Your task to perform on an android device: toggle sleep mode Image 0: 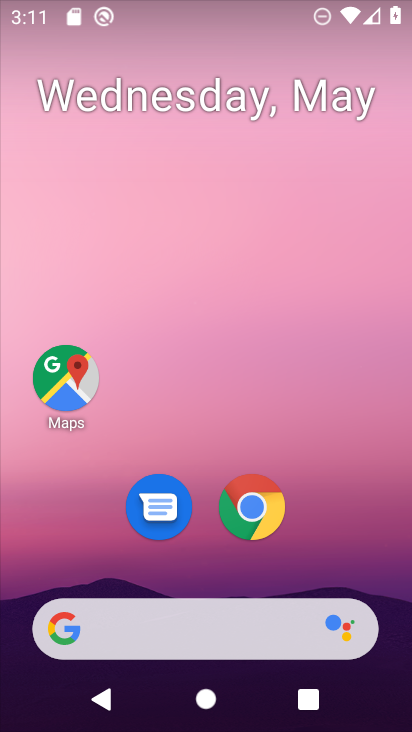
Step 0: drag from (271, 545) to (317, 75)
Your task to perform on an android device: toggle sleep mode Image 1: 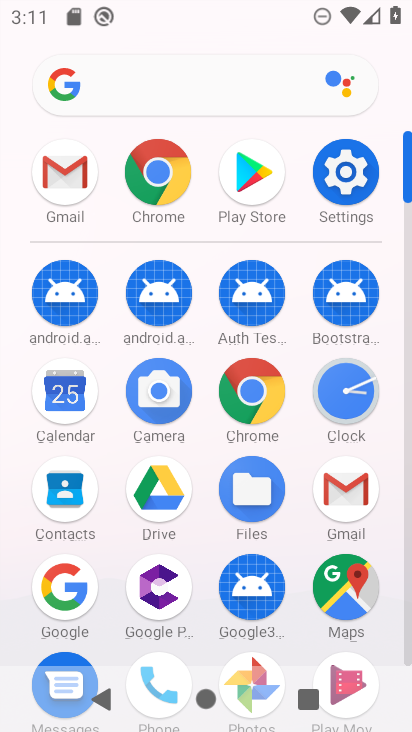
Step 1: click (339, 189)
Your task to perform on an android device: toggle sleep mode Image 2: 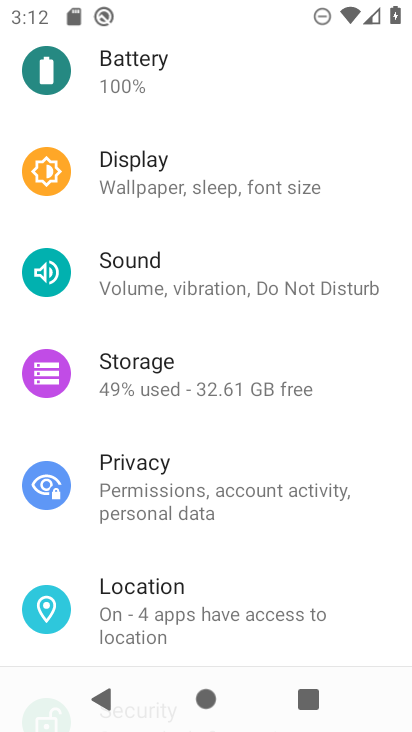
Step 2: drag from (216, 171) to (225, 555)
Your task to perform on an android device: toggle sleep mode Image 3: 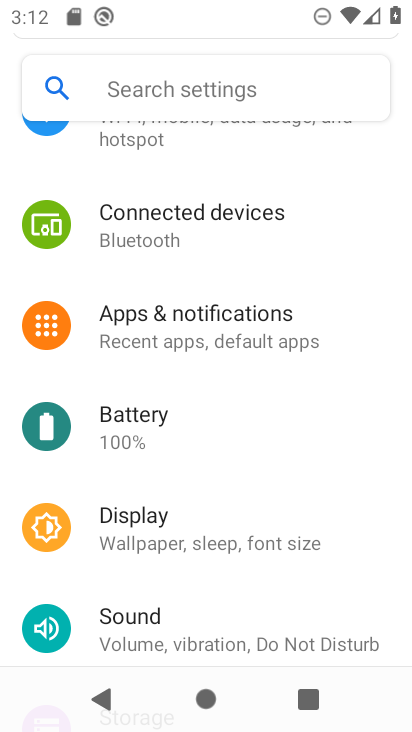
Step 3: click (190, 99)
Your task to perform on an android device: toggle sleep mode Image 4: 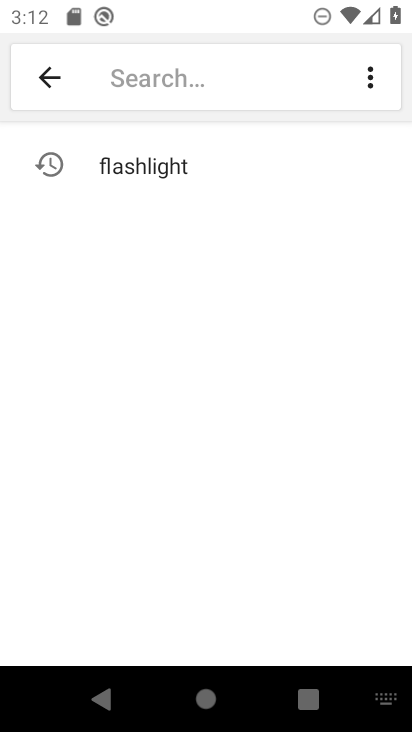
Step 4: type "sleep mode"
Your task to perform on an android device: toggle sleep mode Image 5: 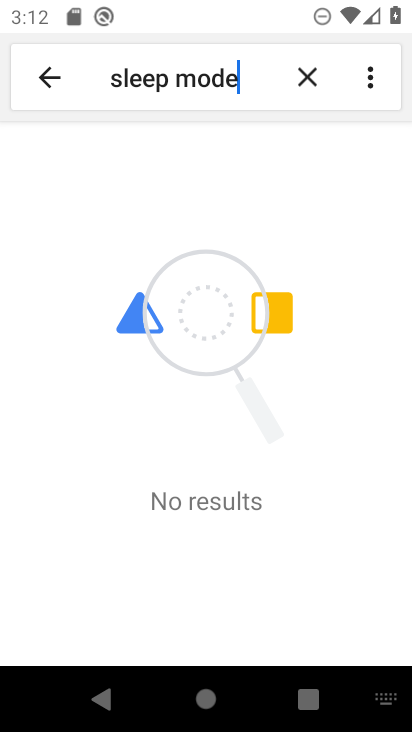
Step 5: click (274, 305)
Your task to perform on an android device: toggle sleep mode Image 6: 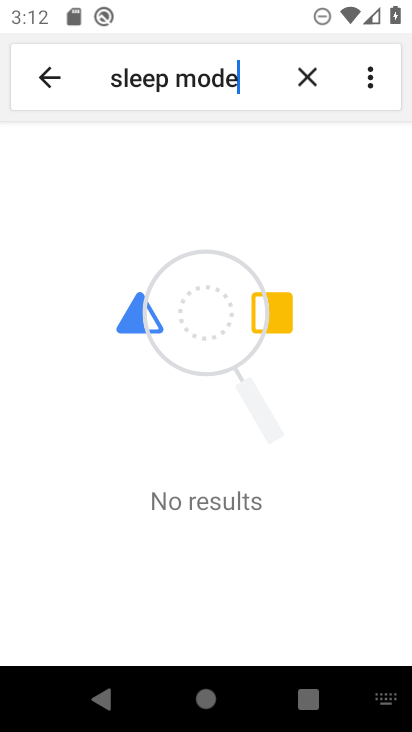
Step 6: task complete